Your task to perform on an android device: Search for pizza restaurants on Maps Image 0: 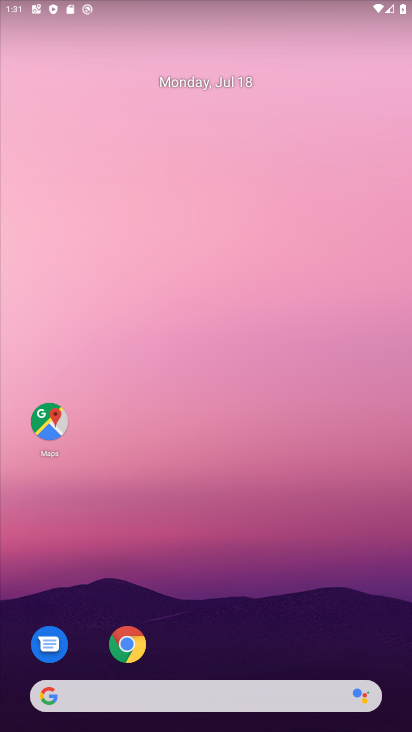
Step 0: click (53, 425)
Your task to perform on an android device: Search for pizza restaurants on Maps Image 1: 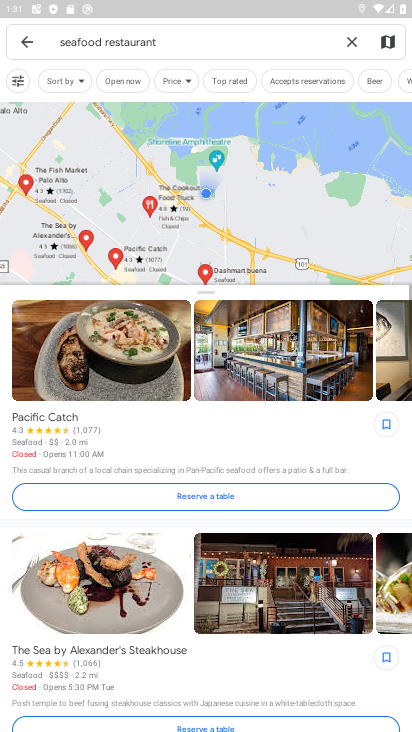
Step 1: click (348, 39)
Your task to perform on an android device: Search for pizza restaurants on Maps Image 2: 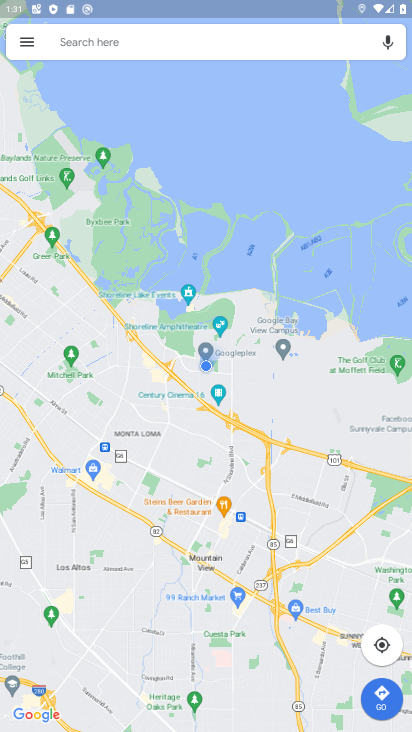
Step 2: click (262, 44)
Your task to perform on an android device: Search for pizza restaurants on Maps Image 3: 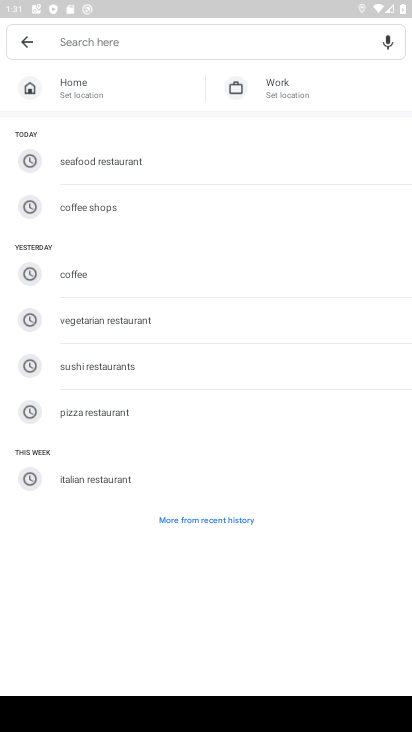
Step 3: type "pizza restaurants"
Your task to perform on an android device: Search for pizza restaurants on Maps Image 4: 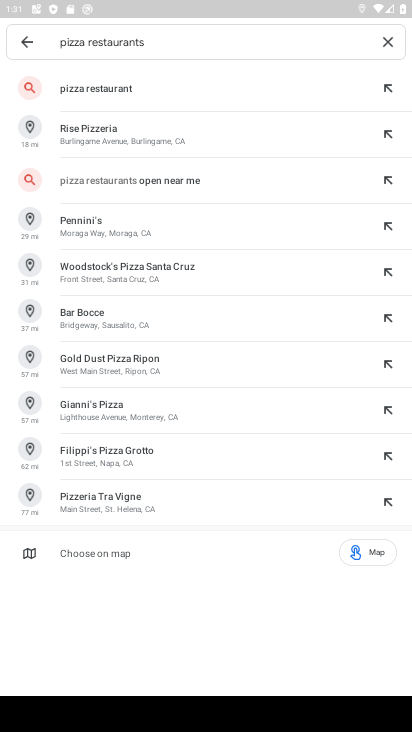
Step 4: click (145, 99)
Your task to perform on an android device: Search for pizza restaurants on Maps Image 5: 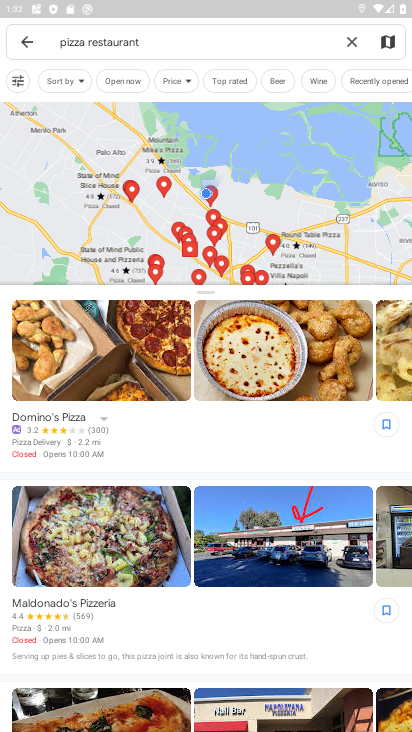
Step 5: task complete